Your task to perform on an android device: Show me popular videos on Youtube Image 0: 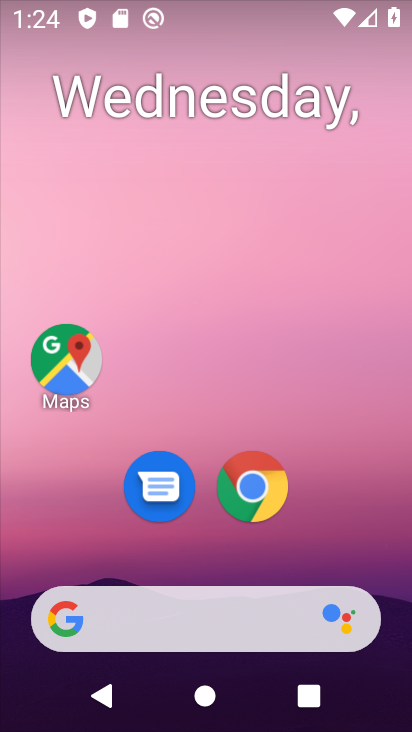
Step 0: drag from (206, 535) to (230, 131)
Your task to perform on an android device: Show me popular videos on Youtube Image 1: 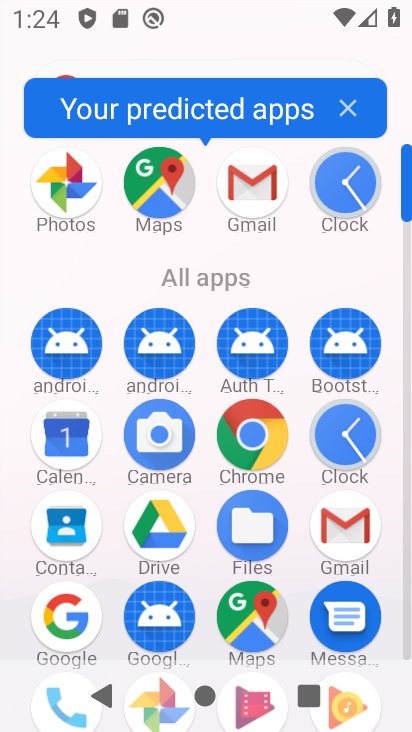
Step 1: drag from (230, 632) to (230, 110)
Your task to perform on an android device: Show me popular videos on Youtube Image 2: 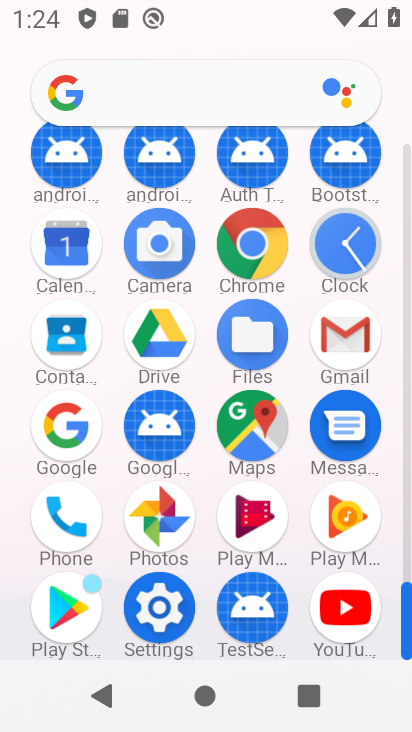
Step 2: click (362, 616)
Your task to perform on an android device: Show me popular videos on Youtube Image 3: 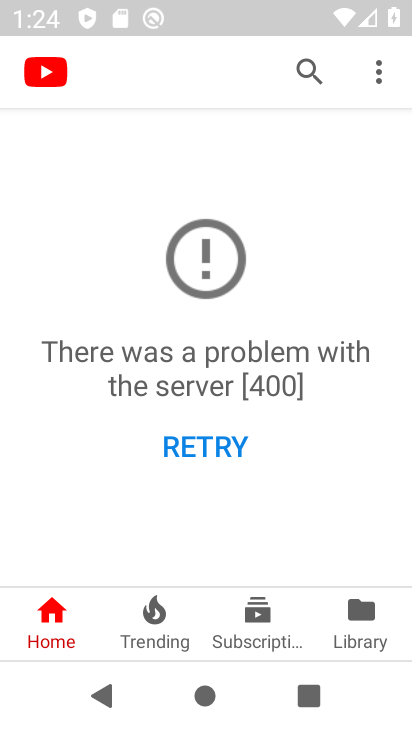
Step 3: click (365, 617)
Your task to perform on an android device: Show me popular videos on Youtube Image 4: 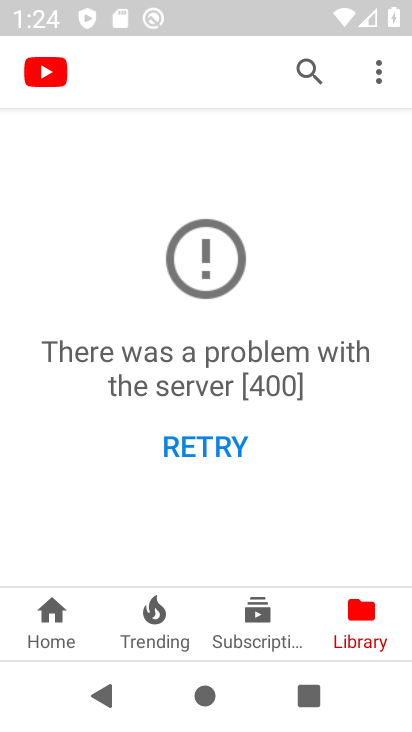
Step 4: task complete